Your task to perform on an android device: Open wifi settings Image 0: 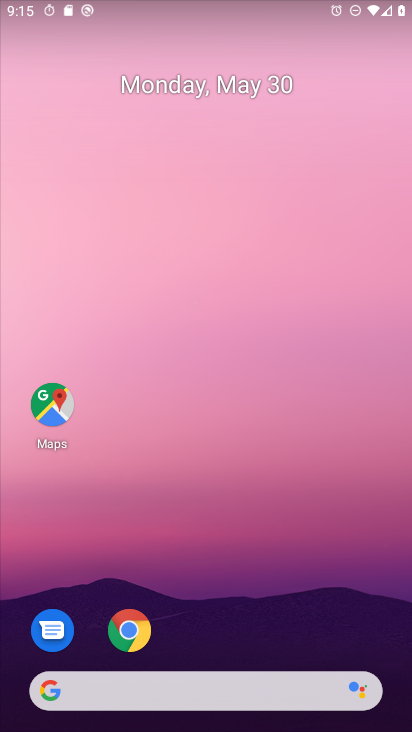
Step 0: drag from (345, 605) to (5, 318)
Your task to perform on an android device: Open wifi settings Image 1: 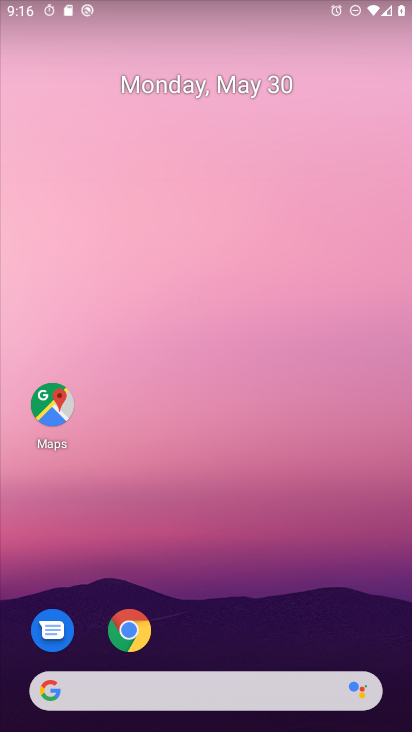
Step 1: drag from (255, 640) to (196, 40)
Your task to perform on an android device: Open wifi settings Image 2: 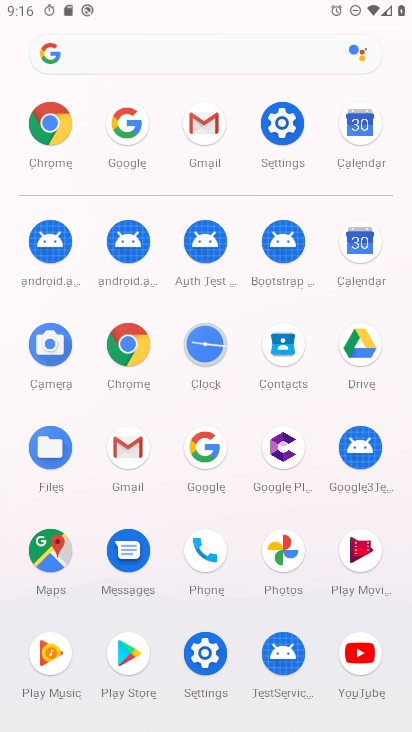
Step 2: click (280, 101)
Your task to perform on an android device: Open wifi settings Image 3: 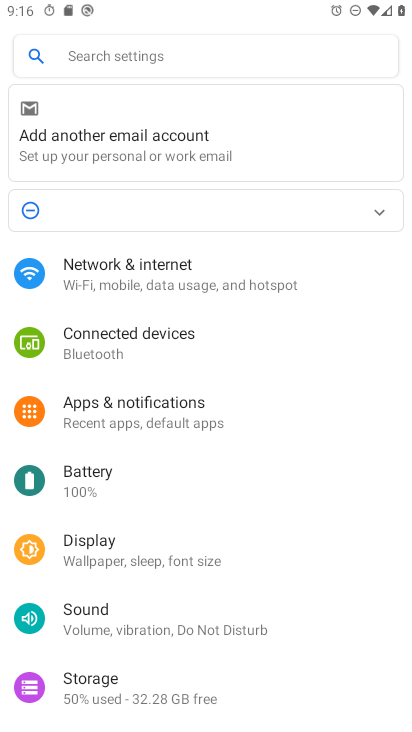
Step 3: click (131, 288)
Your task to perform on an android device: Open wifi settings Image 4: 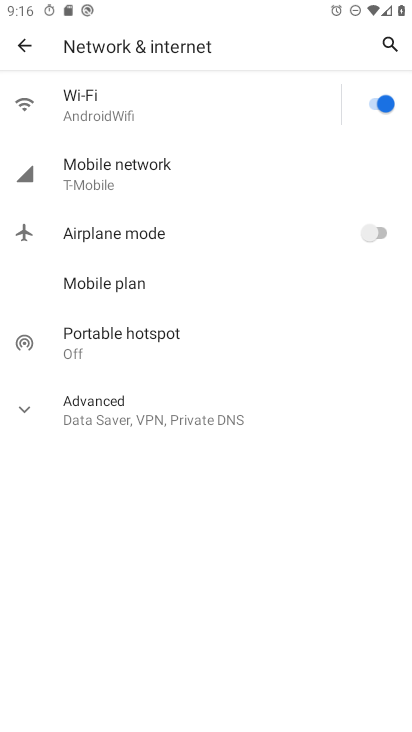
Step 4: click (132, 100)
Your task to perform on an android device: Open wifi settings Image 5: 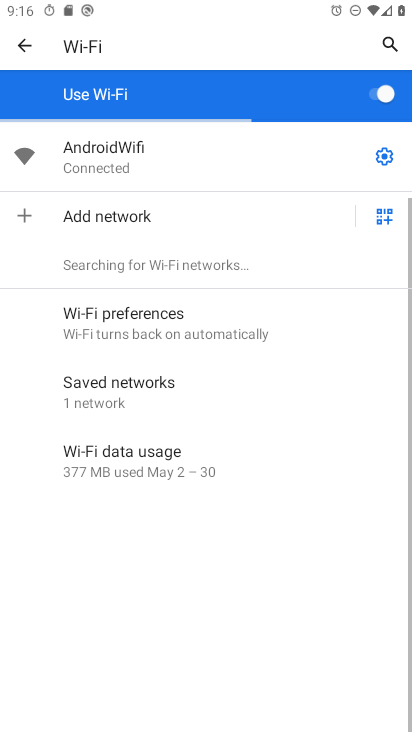
Step 5: task complete